Your task to perform on an android device: delete location history Image 0: 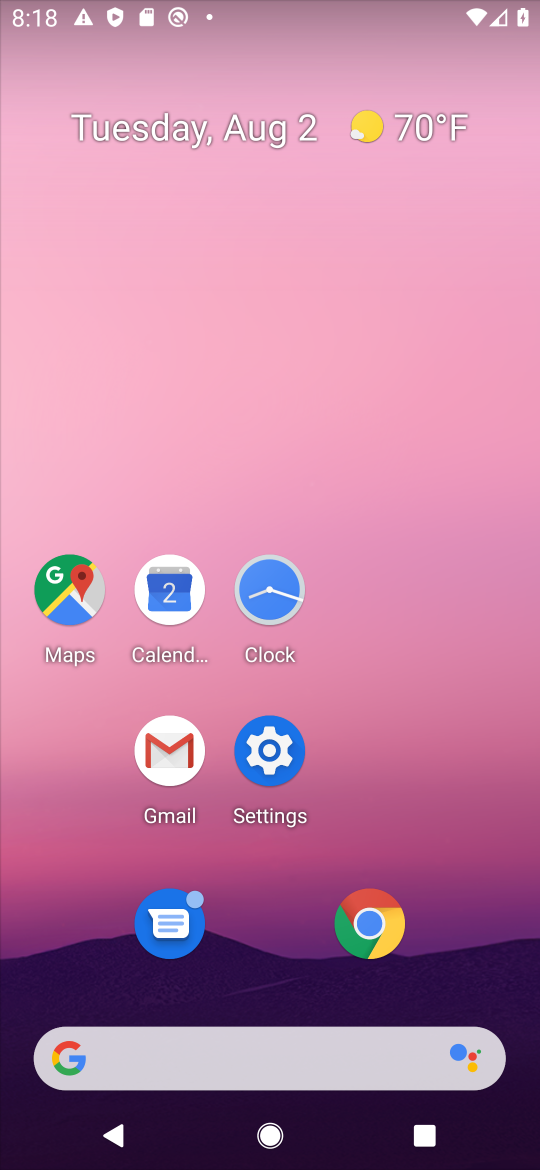
Step 0: click (58, 601)
Your task to perform on an android device: delete location history Image 1: 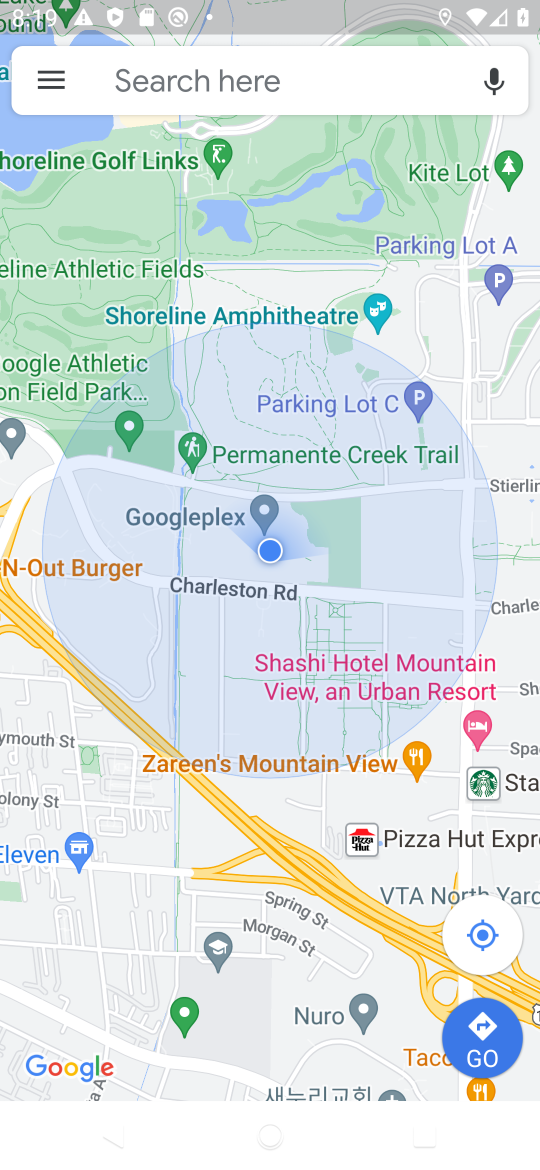
Step 1: click (48, 70)
Your task to perform on an android device: delete location history Image 2: 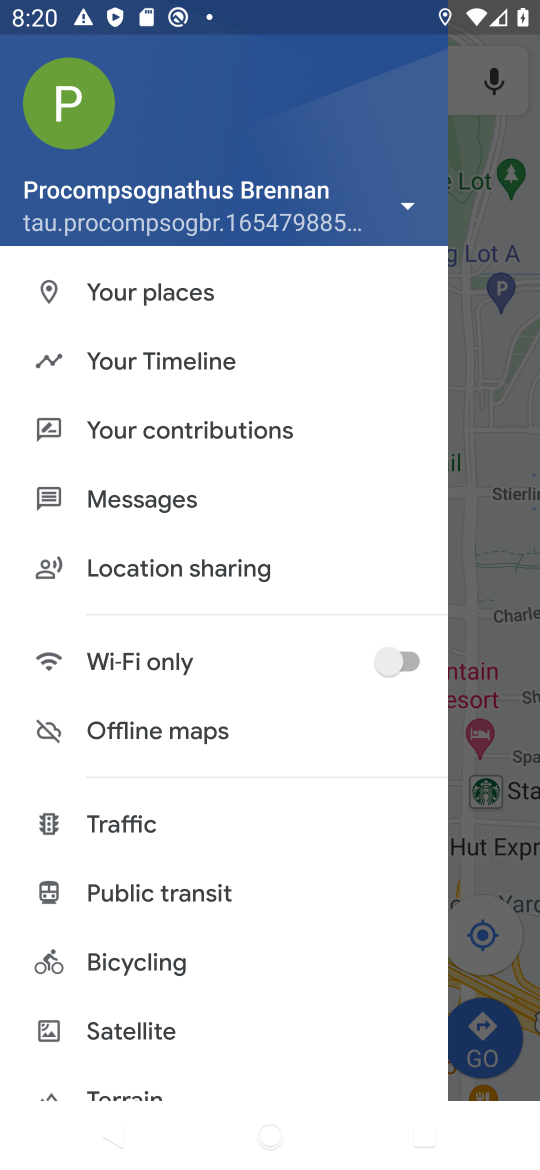
Step 2: drag from (321, 1051) to (155, 554)
Your task to perform on an android device: delete location history Image 3: 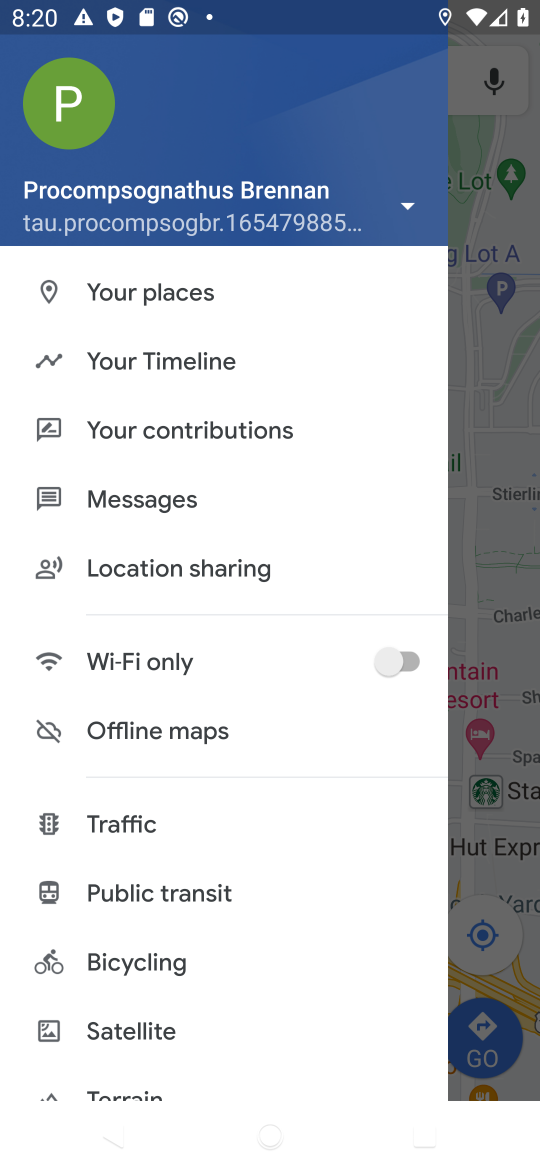
Step 3: click (125, 352)
Your task to perform on an android device: delete location history Image 4: 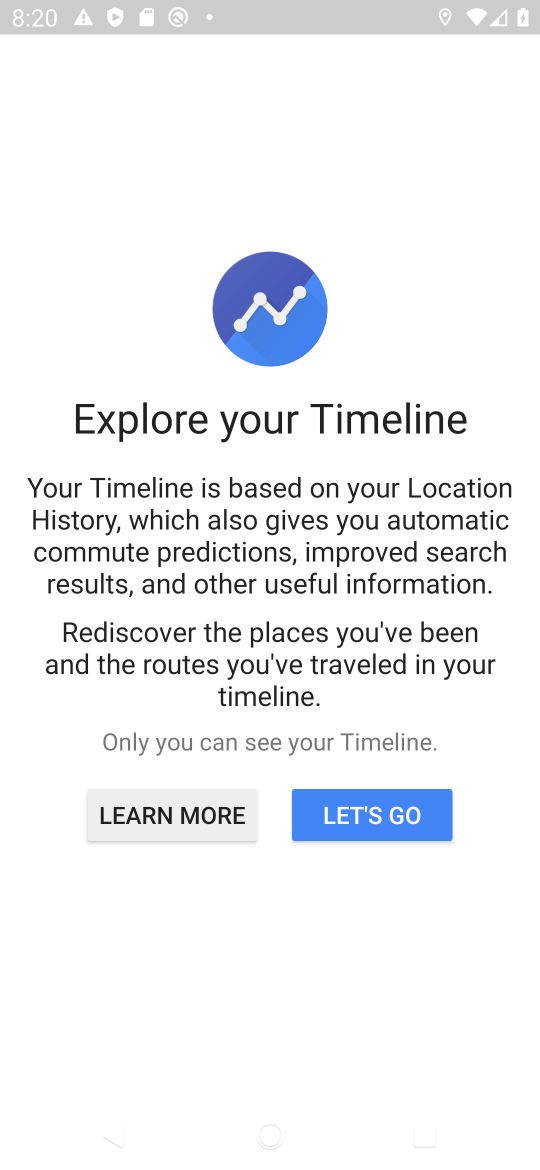
Step 4: click (386, 778)
Your task to perform on an android device: delete location history Image 5: 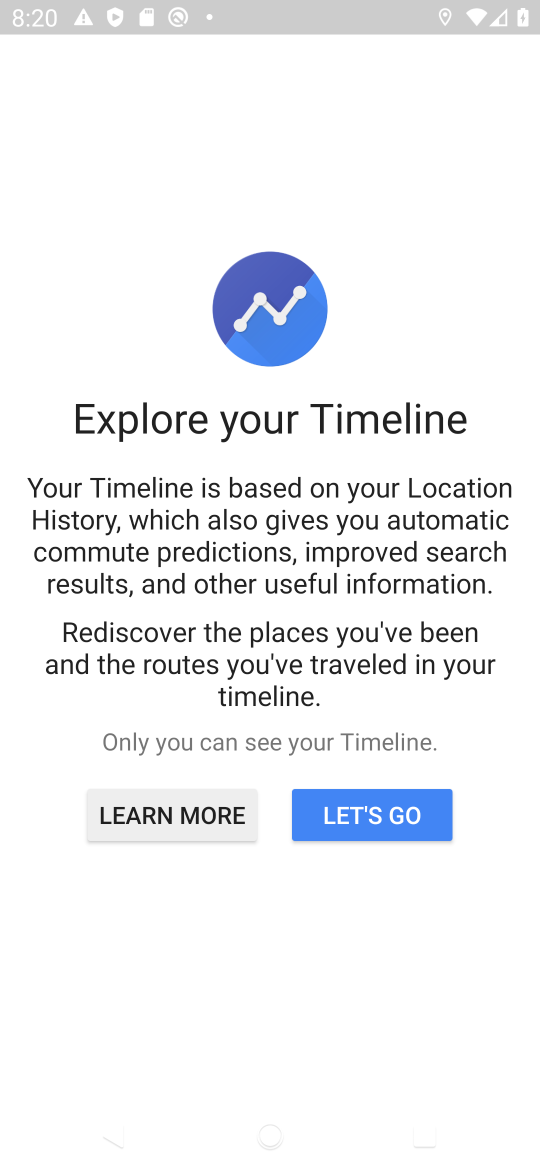
Step 5: click (399, 813)
Your task to perform on an android device: delete location history Image 6: 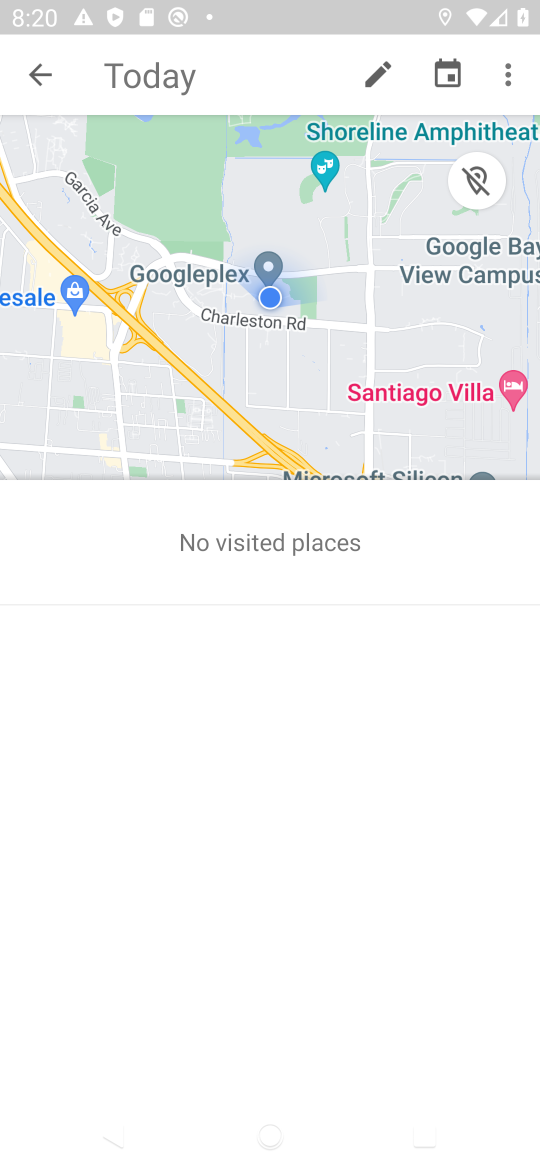
Step 6: click (507, 75)
Your task to perform on an android device: delete location history Image 7: 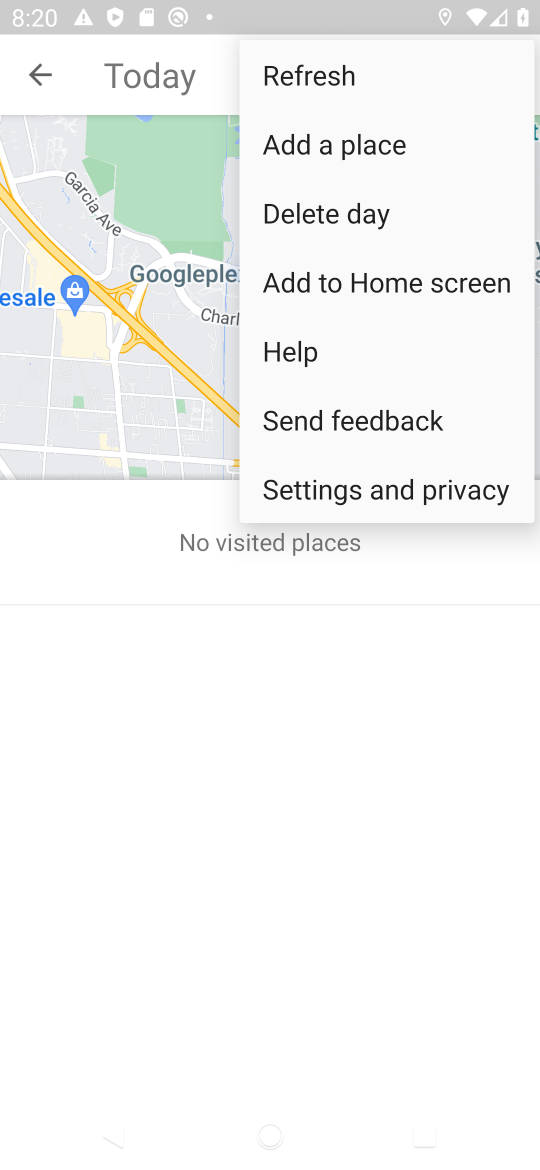
Step 7: click (443, 484)
Your task to perform on an android device: delete location history Image 8: 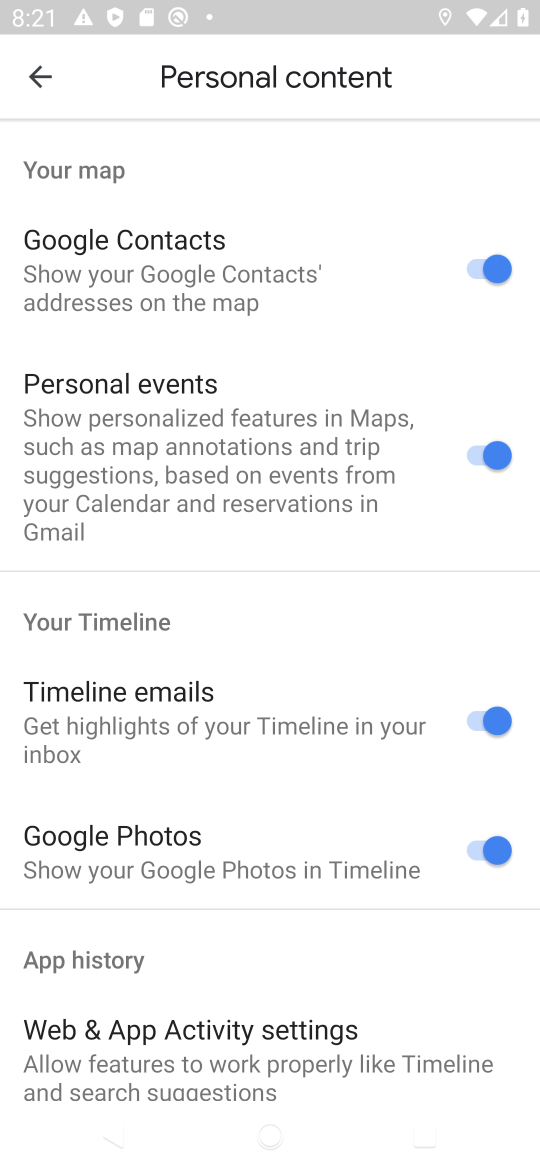
Step 8: drag from (299, 981) to (135, 344)
Your task to perform on an android device: delete location history Image 9: 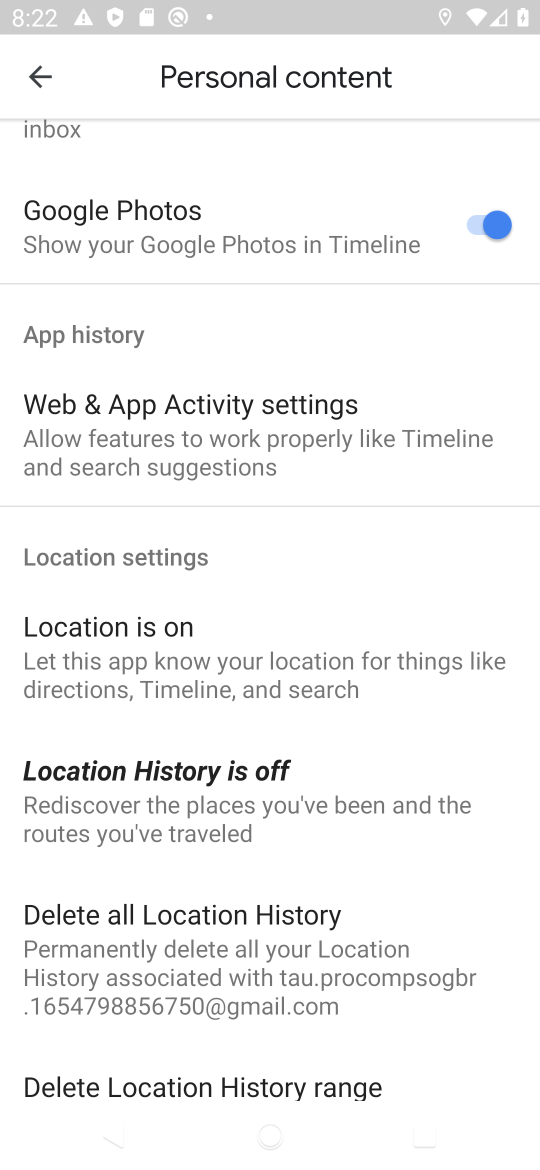
Step 9: drag from (410, 1042) to (277, 428)
Your task to perform on an android device: delete location history Image 10: 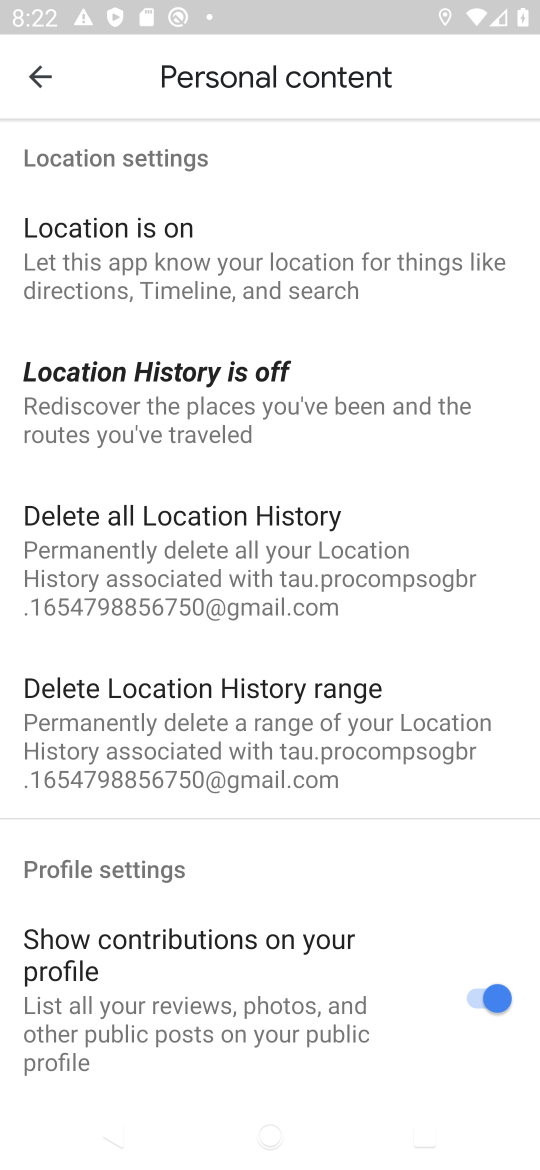
Step 10: click (220, 538)
Your task to perform on an android device: delete location history Image 11: 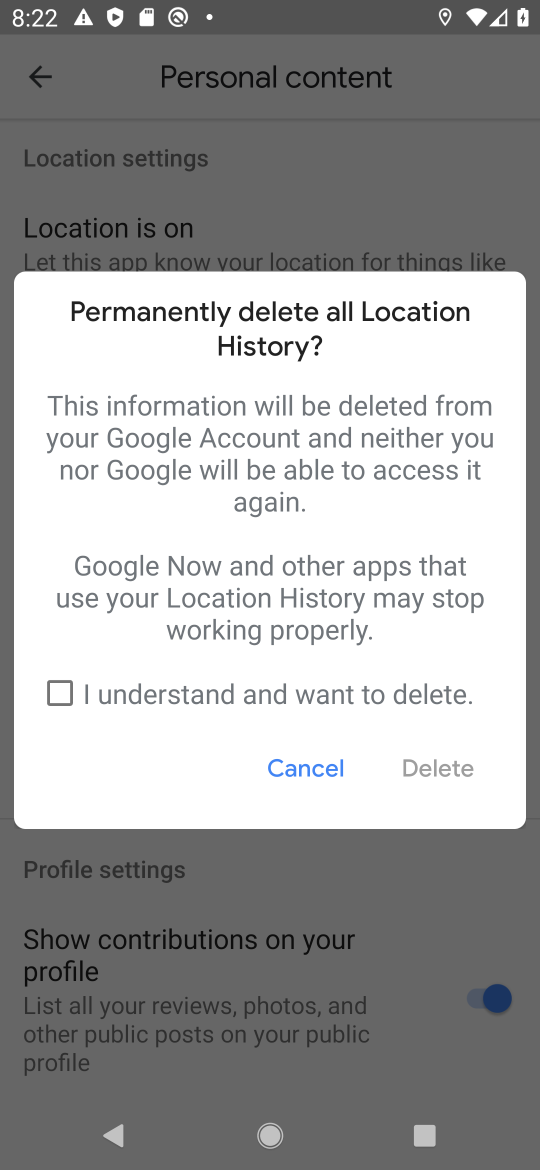
Step 11: click (53, 703)
Your task to perform on an android device: delete location history Image 12: 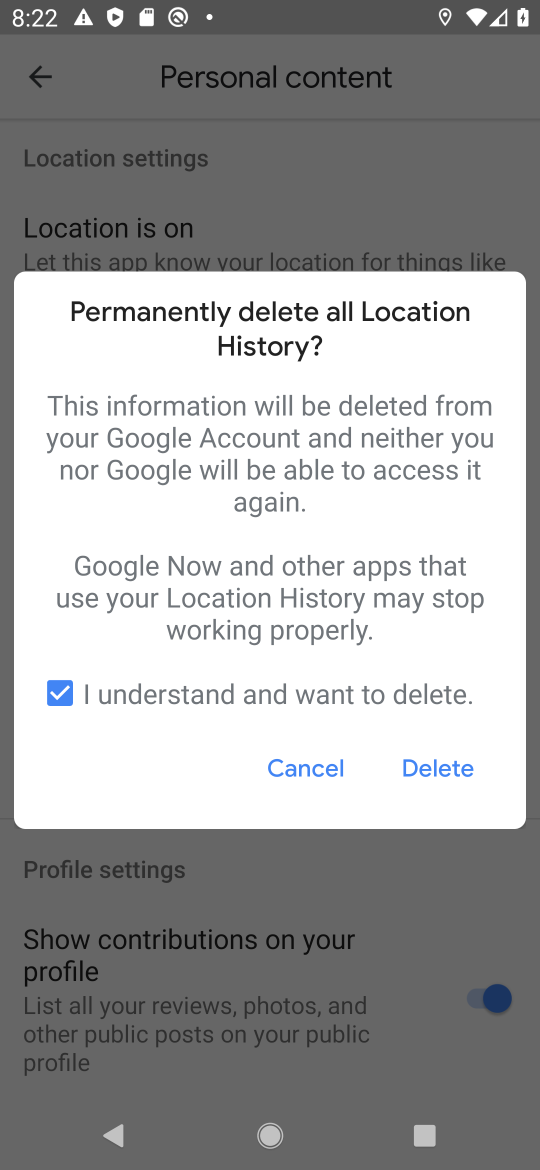
Step 12: click (464, 764)
Your task to perform on an android device: delete location history Image 13: 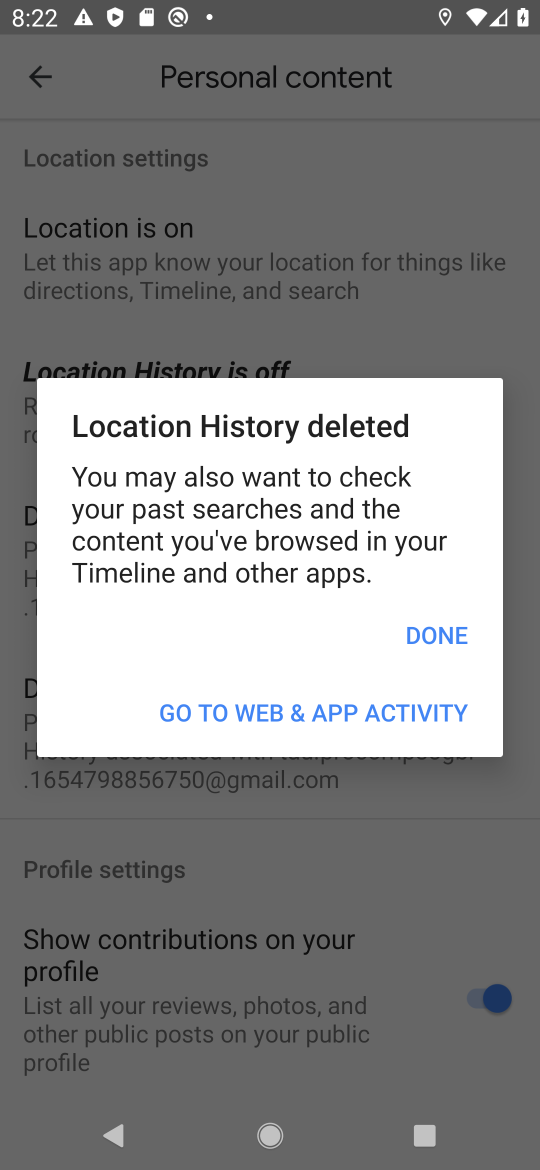
Step 13: click (444, 624)
Your task to perform on an android device: delete location history Image 14: 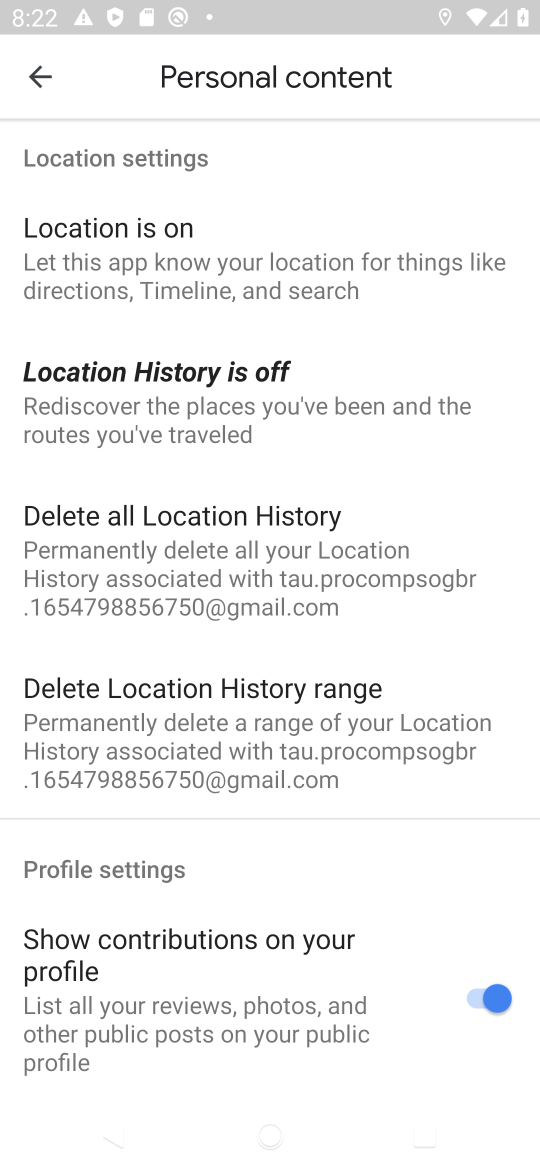
Step 14: task complete